Your task to perform on an android device: Go to notification settings Image 0: 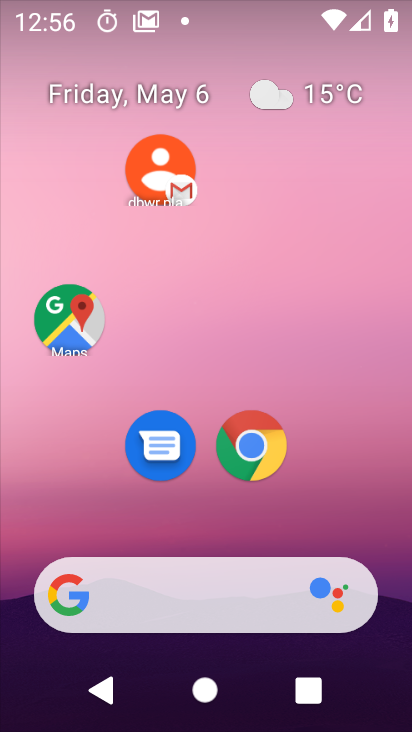
Step 0: drag from (341, 515) to (157, 31)
Your task to perform on an android device: Go to notification settings Image 1: 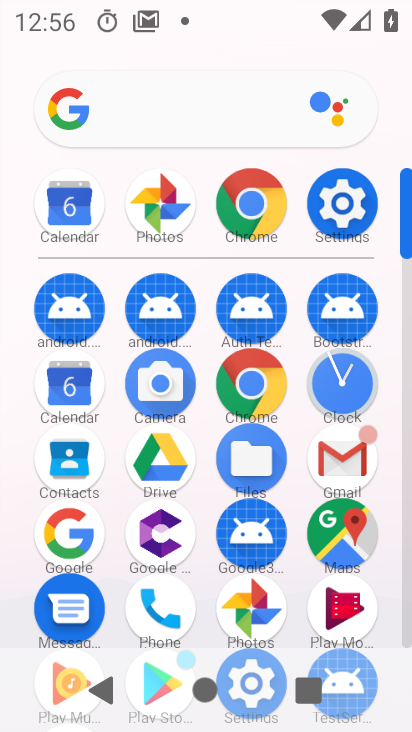
Step 1: click (351, 203)
Your task to perform on an android device: Go to notification settings Image 2: 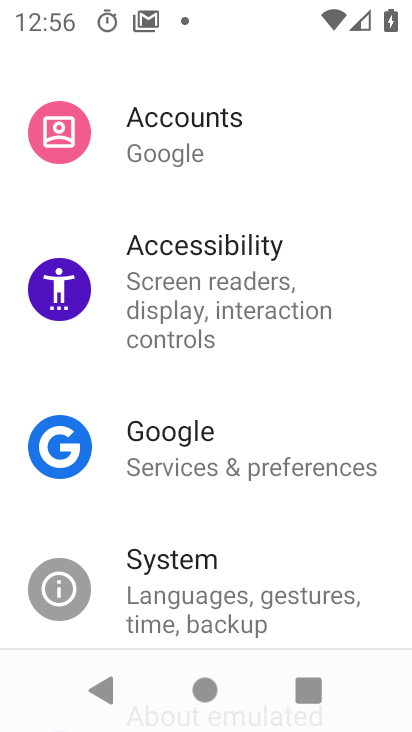
Step 2: drag from (196, 160) to (212, 598)
Your task to perform on an android device: Go to notification settings Image 3: 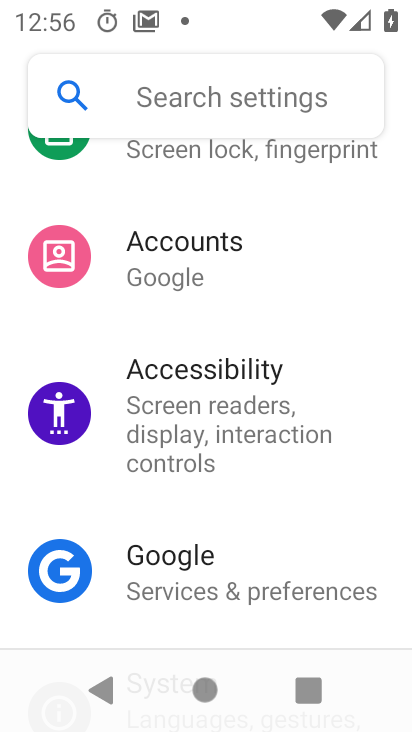
Step 3: drag from (185, 264) to (236, 581)
Your task to perform on an android device: Go to notification settings Image 4: 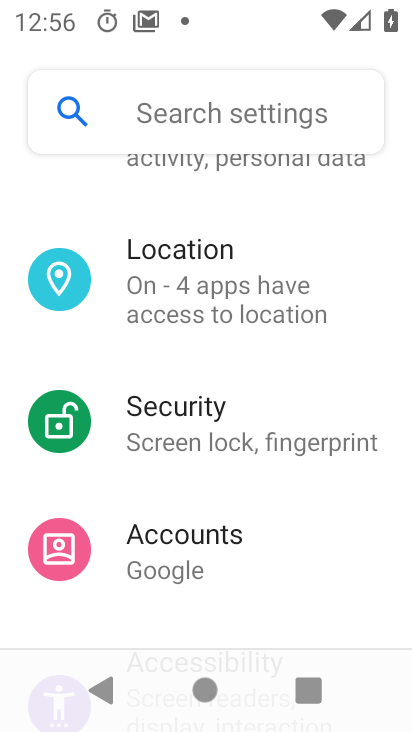
Step 4: drag from (210, 225) to (241, 594)
Your task to perform on an android device: Go to notification settings Image 5: 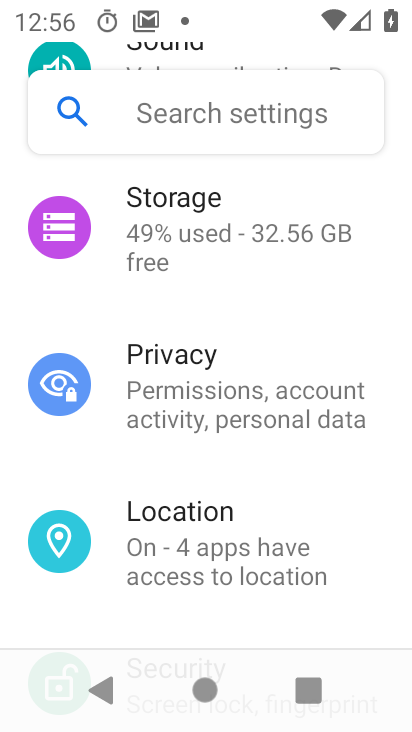
Step 5: drag from (226, 305) to (234, 555)
Your task to perform on an android device: Go to notification settings Image 6: 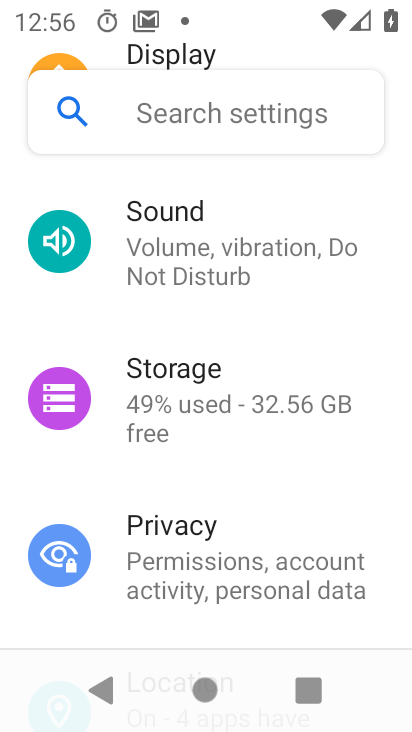
Step 6: drag from (262, 186) to (225, 586)
Your task to perform on an android device: Go to notification settings Image 7: 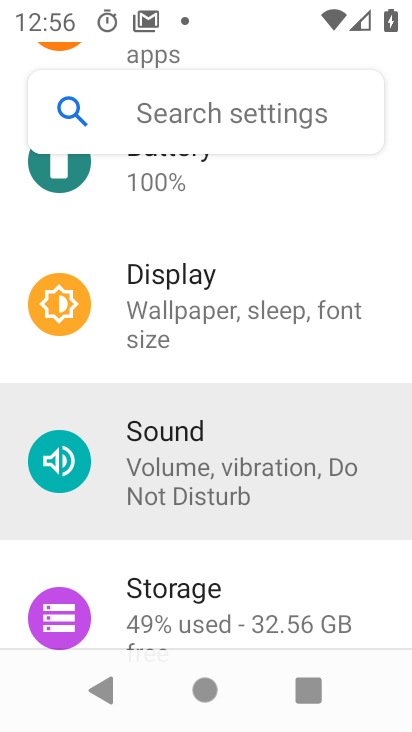
Step 7: drag from (189, 241) to (172, 598)
Your task to perform on an android device: Go to notification settings Image 8: 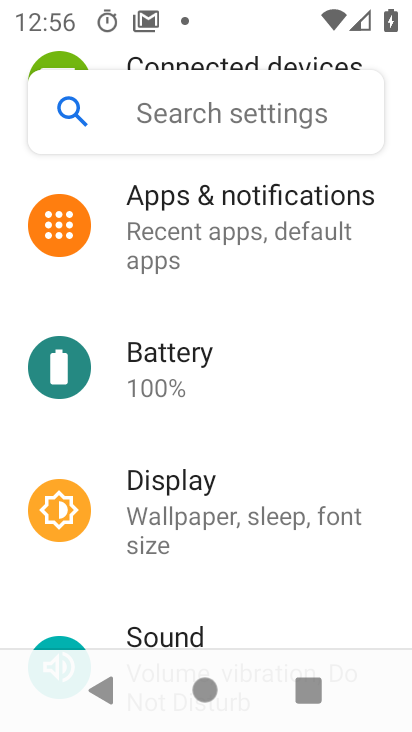
Step 8: drag from (219, 190) to (254, 598)
Your task to perform on an android device: Go to notification settings Image 9: 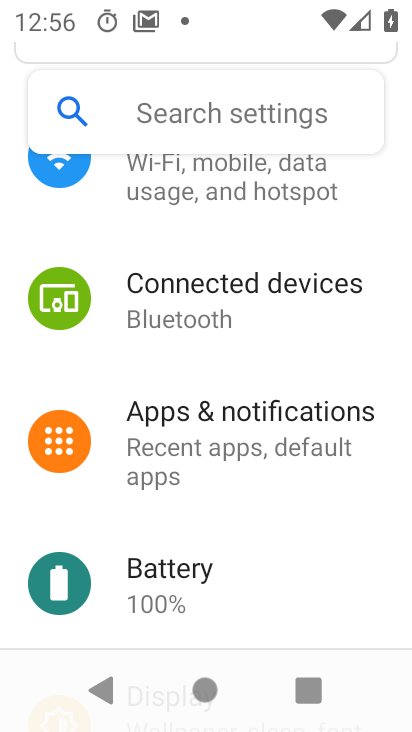
Step 9: drag from (206, 199) to (178, 556)
Your task to perform on an android device: Go to notification settings Image 10: 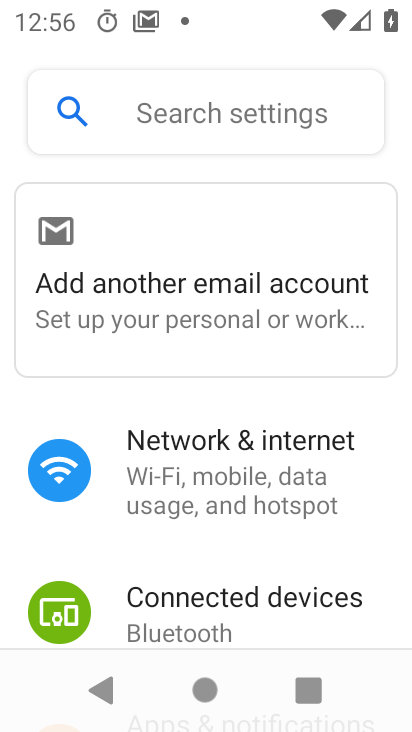
Step 10: drag from (118, 236) to (152, 667)
Your task to perform on an android device: Go to notification settings Image 11: 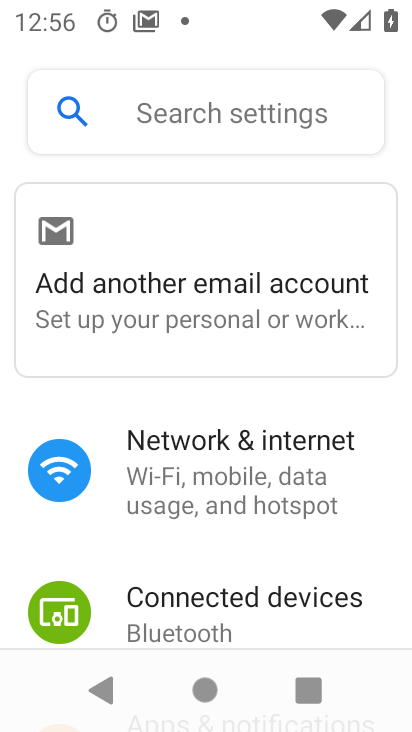
Step 11: drag from (254, 580) to (260, 63)
Your task to perform on an android device: Go to notification settings Image 12: 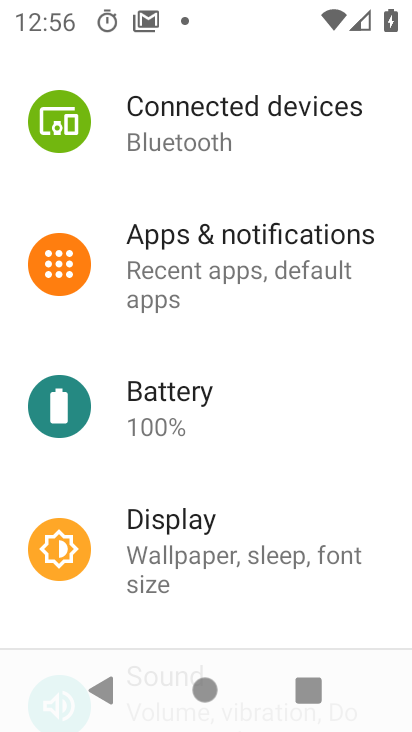
Step 12: click (188, 245)
Your task to perform on an android device: Go to notification settings Image 13: 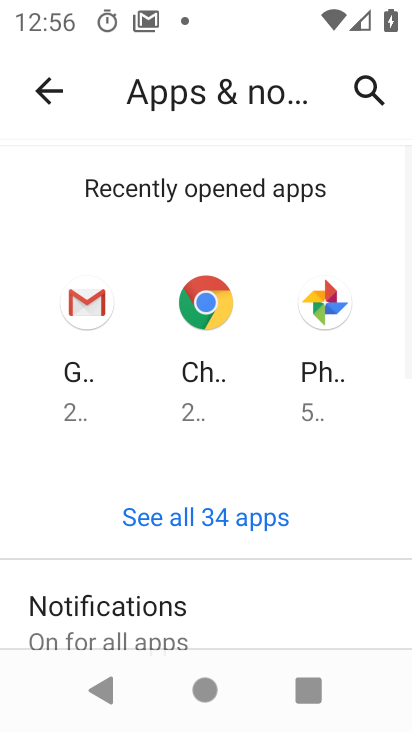
Step 13: drag from (205, 577) to (170, 249)
Your task to perform on an android device: Go to notification settings Image 14: 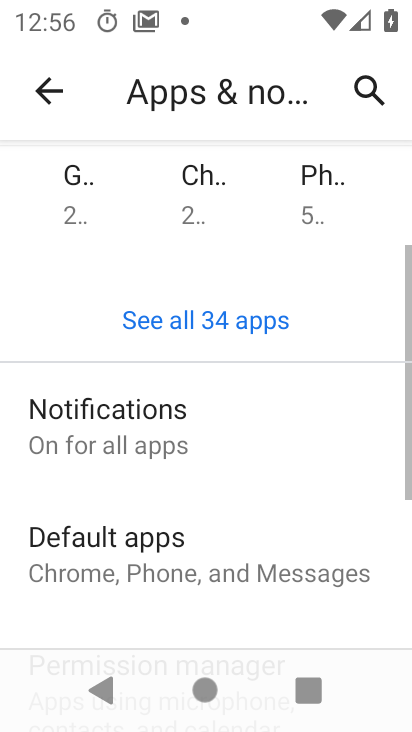
Step 14: drag from (231, 486) to (160, 188)
Your task to perform on an android device: Go to notification settings Image 15: 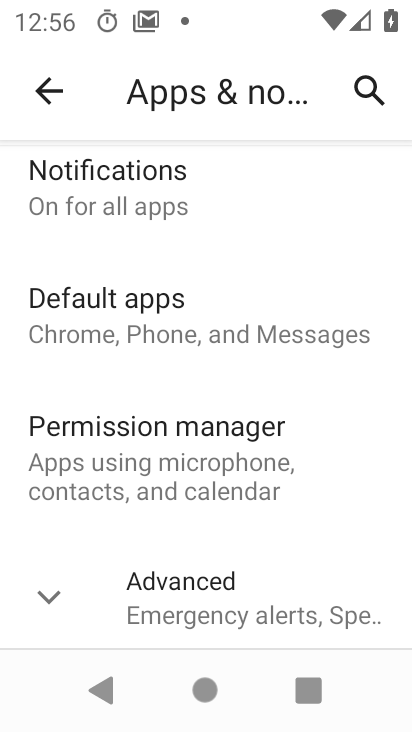
Step 15: click (120, 190)
Your task to perform on an android device: Go to notification settings Image 16: 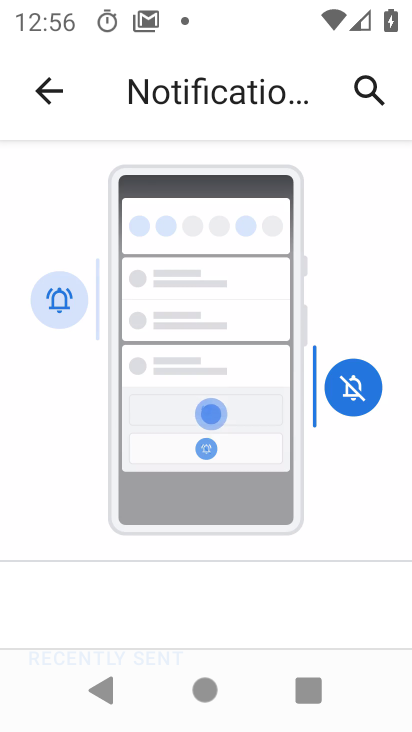
Step 16: task complete